Your task to perform on an android device: turn off sleep mode Image 0: 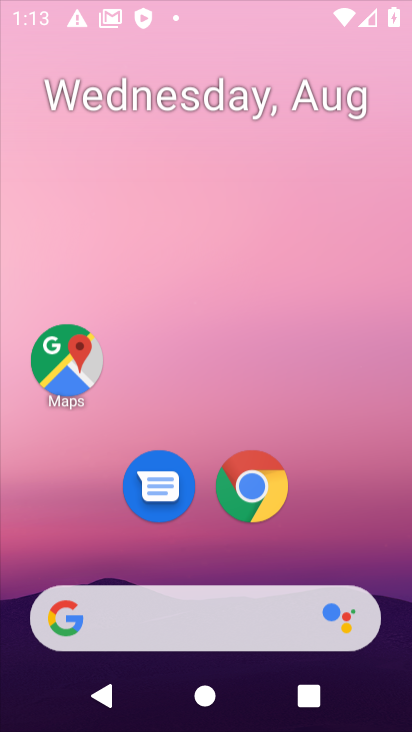
Step 0: press home button
Your task to perform on an android device: turn off sleep mode Image 1: 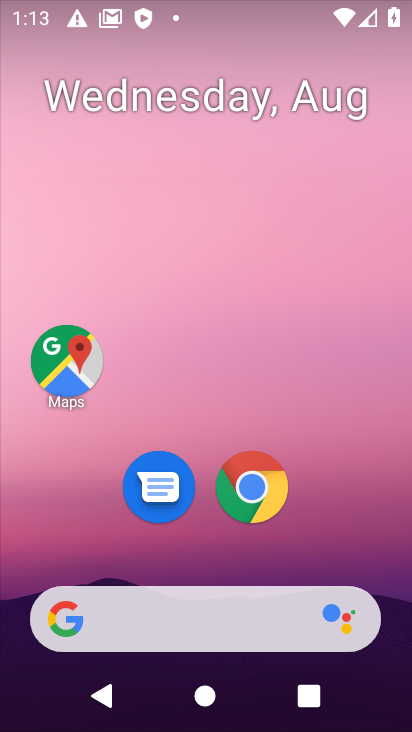
Step 1: press home button
Your task to perform on an android device: turn off sleep mode Image 2: 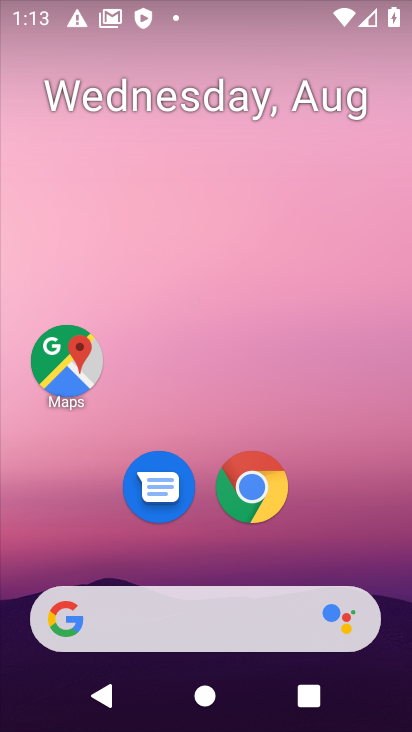
Step 2: drag from (323, 557) to (273, 119)
Your task to perform on an android device: turn off sleep mode Image 3: 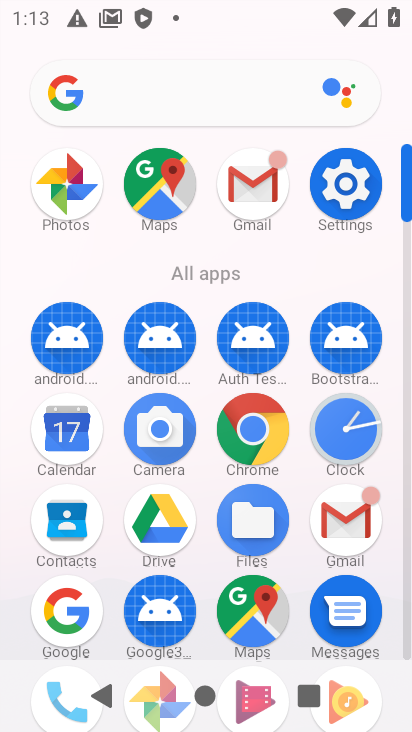
Step 3: click (351, 176)
Your task to perform on an android device: turn off sleep mode Image 4: 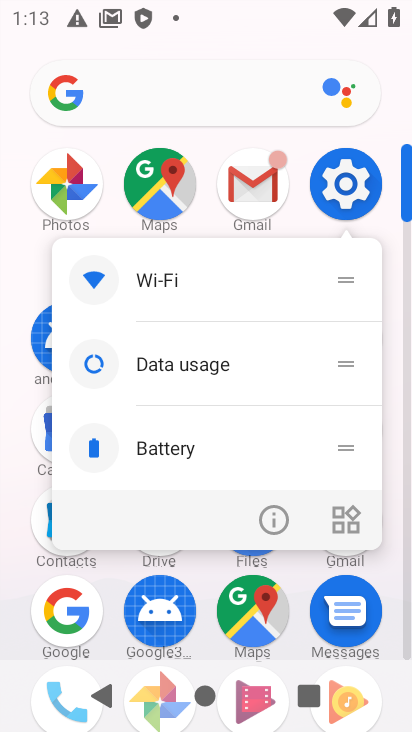
Step 4: click (346, 189)
Your task to perform on an android device: turn off sleep mode Image 5: 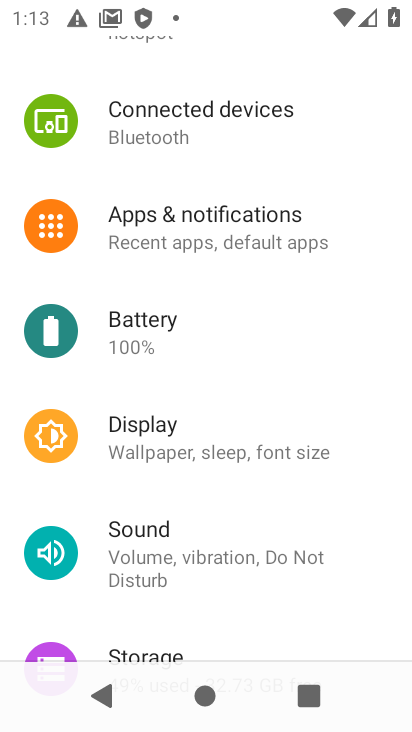
Step 5: click (149, 457)
Your task to perform on an android device: turn off sleep mode Image 6: 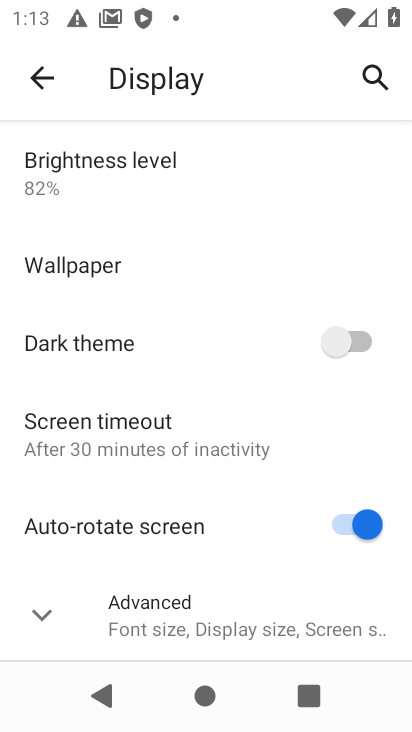
Step 6: task complete